Your task to perform on an android device: open app "TextNow: Call + Text Unlimited" Image 0: 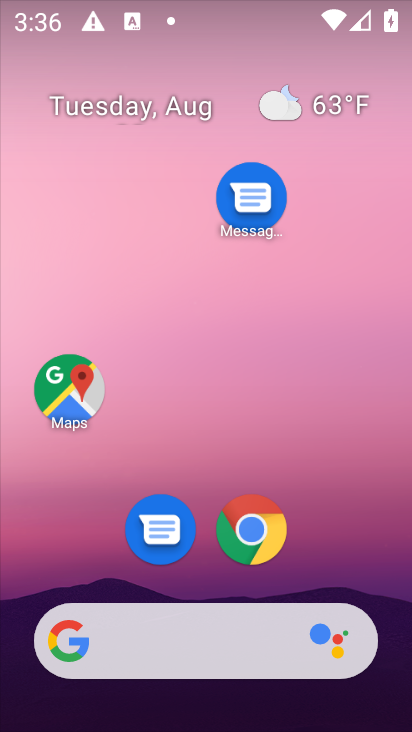
Step 0: drag from (215, 413) to (219, 39)
Your task to perform on an android device: open app "TextNow: Call + Text Unlimited" Image 1: 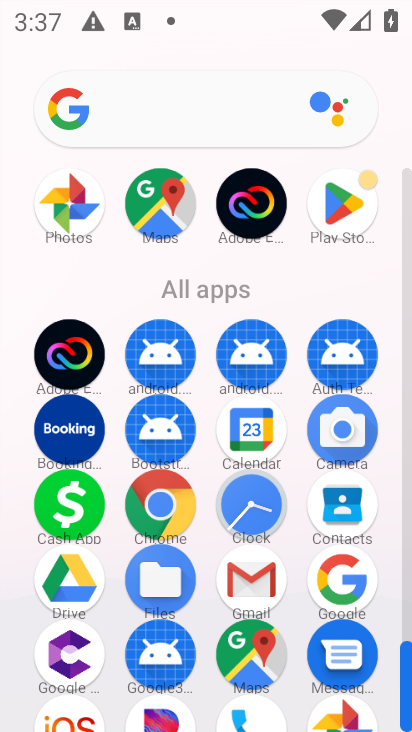
Step 1: click (324, 208)
Your task to perform on an android device: open app "TextNow: Call + Text Unlimited" Image 2: 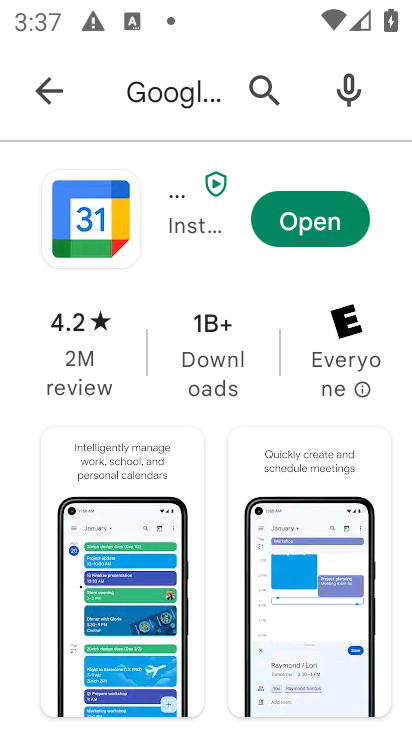
Step 2: press back button
Your task to perform on an android device: open app "TextNow: Call + Text Unlimited" Image 3: 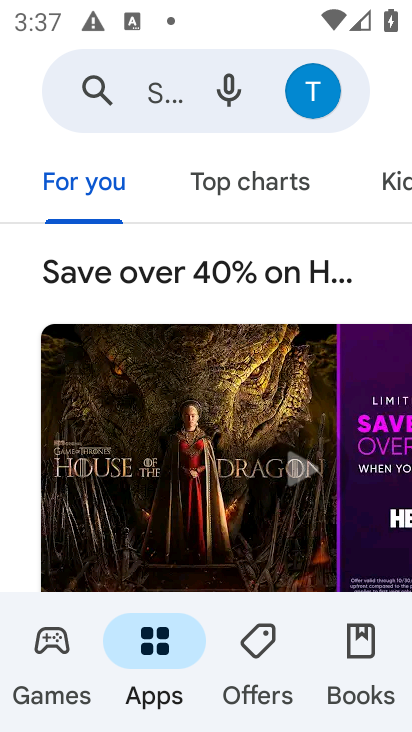
Step 3: click (142, 95)
Your task to perform on an android device: open app "TextNow: Call + Text Unlimited" Image 4: 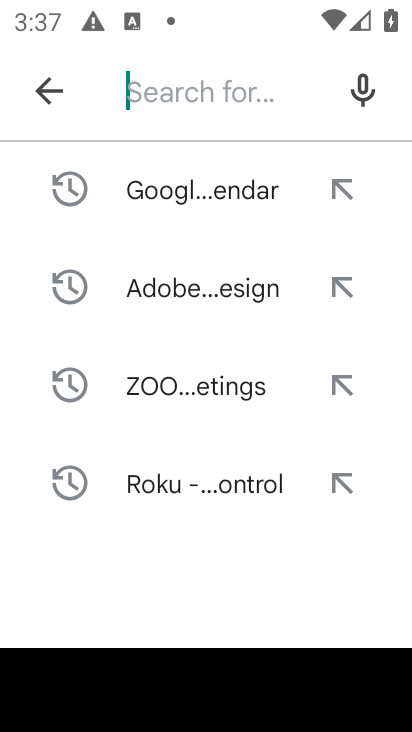
Step 4: type "TextNow: Call + Text Unlimited"
Your task to perform on an android device: open app "TextNow: Call + Text Unlimited" Image 5: 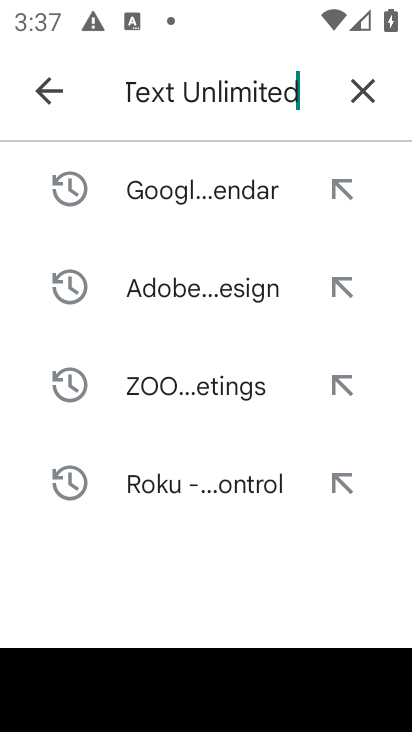
Step 5: press enter
Your task to perform on an android device: open app "TextNow: Call + Text Unlimited" Image 6: 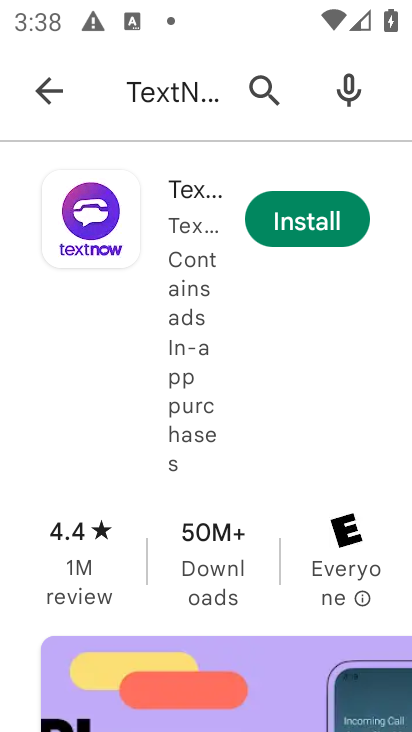
Step 6: task complete